Your task to perform on an android device: open app "PlayWell" (install if not already installed) and enter user name: "metric@gmail.com" and password: "bumblebee" Image 0: 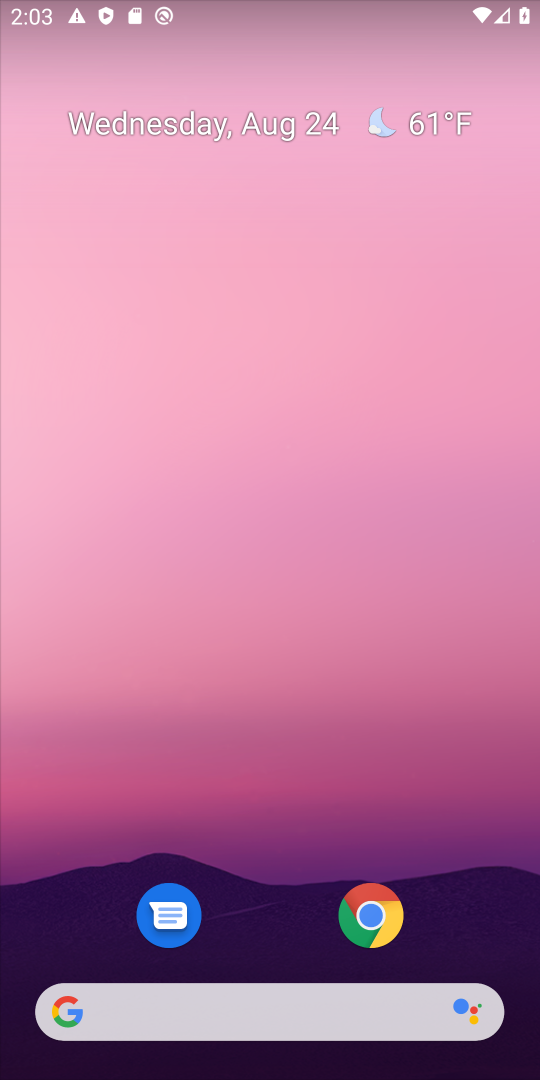
Step 0: drag from (259, 895) to (323, 211)
Your task to perform on an android device: open app "PlayWell" (install if not already installed) and enter user name: "metric@gmail.com" and password: "bumblebee" Image 1: 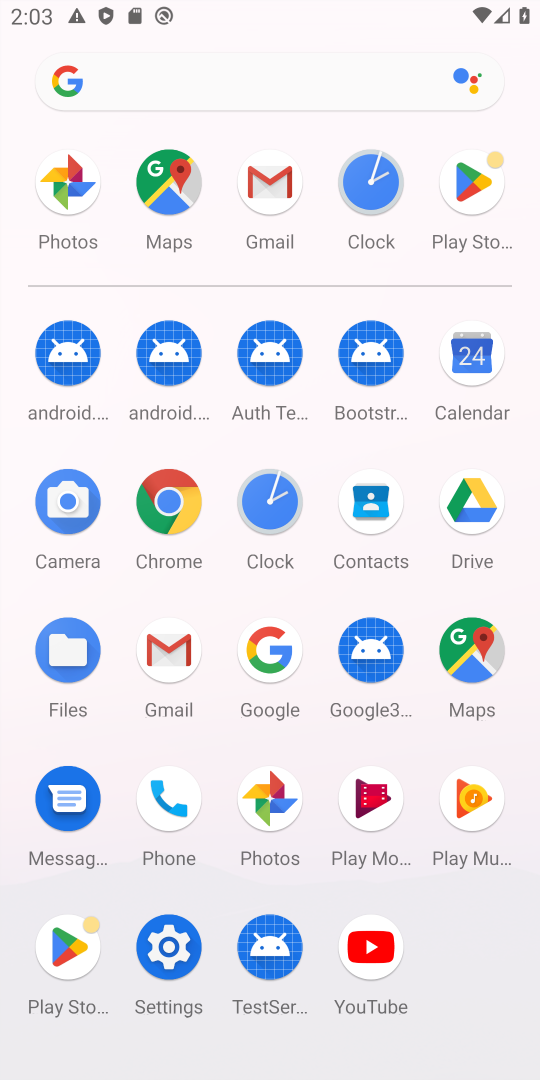
Step 1: click (445, 196)
Your task to perform on an android device: open app "PlayWell" (install if not already installed) and enter user name: "metric@gmail.com" and password: "bumblebee" Image 2: 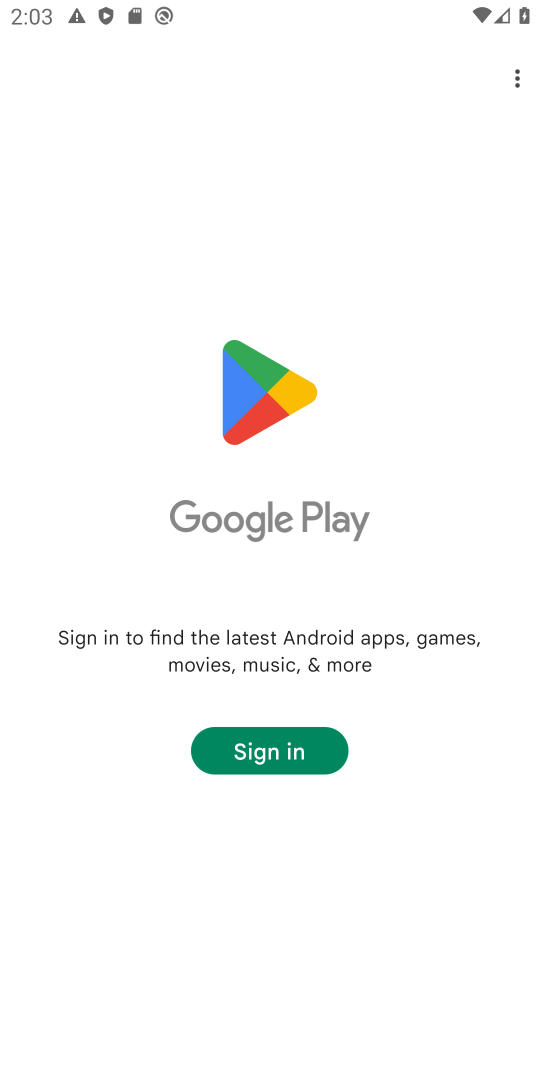
Step 2: task complete